Your task to perform on an android device: Go to settings Image 0: 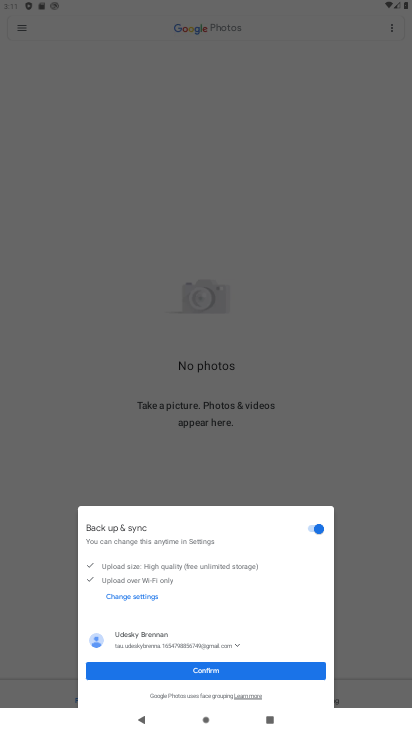
Step 0: press home button
Your task to perform on an android device: Go to settings Image 1: 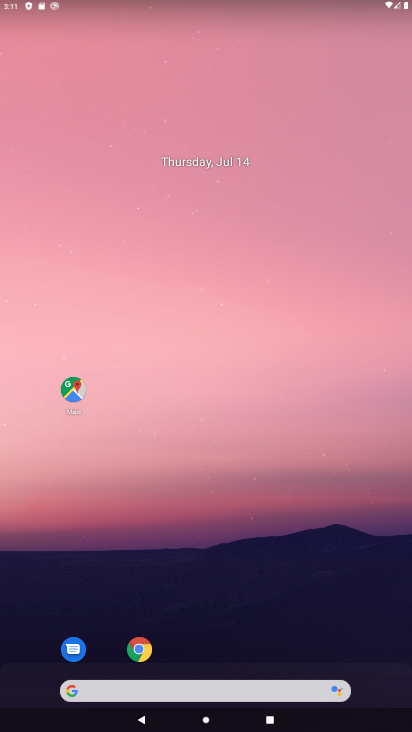
Step 1: drag from (207, 643) to (211, 108)
Your task to perform on an android device: Go to settings Image 2: 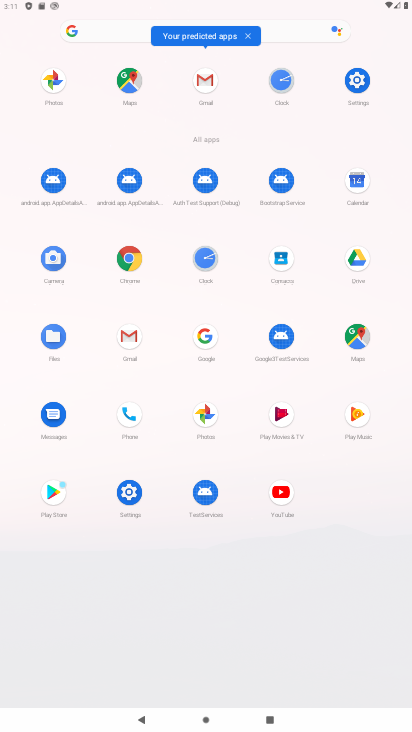
Step 2: click (360, 84)
Your task to perform on an android device: Go to settings Image 3: 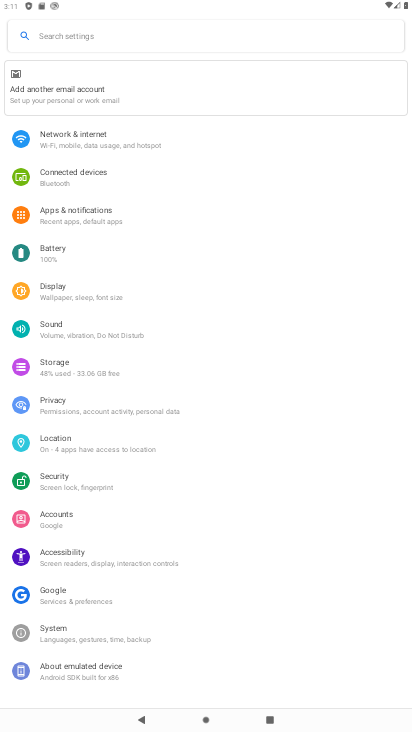
Step 3: task complete